Your task to perform on an android device: Find coffee shops on Maps Image 0: 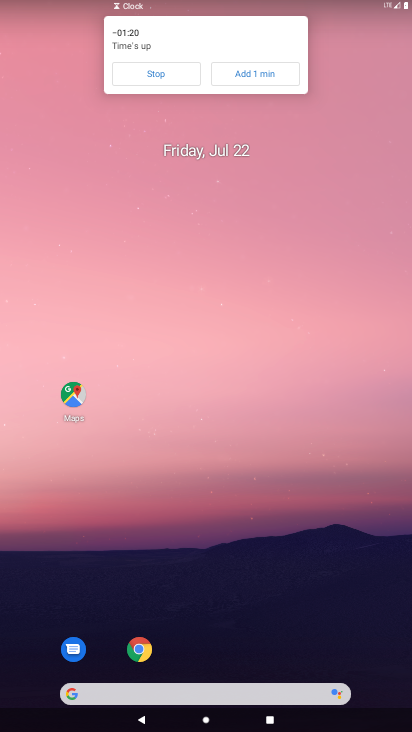
Step 0: drag from (226, 722) to (204, 218)
Your task to perform on an android device: Find coffee shops on Maps Image 1: 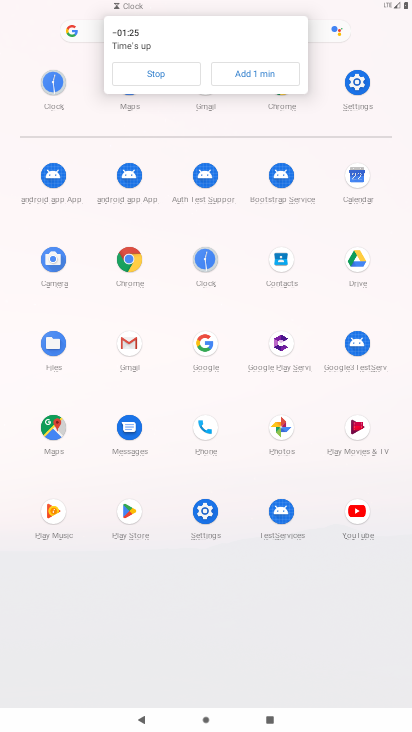
Step 1: click (47, 429)
Your task to perform on an android device: Find coffee shops on Maps Image 2: 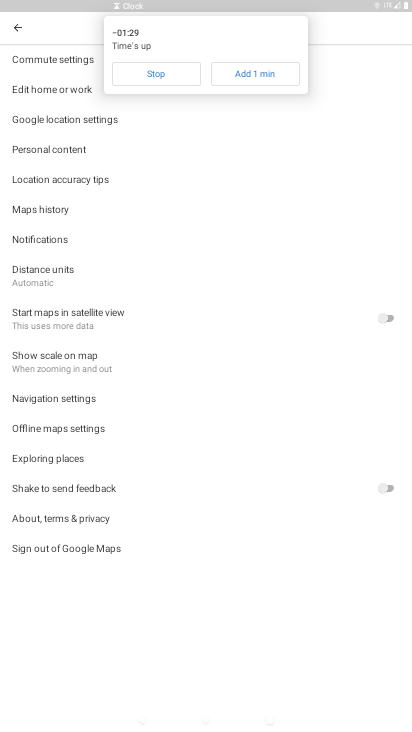
Step 2: click (163, 76)
Your task to perform on an android device: Find coffee shops on Maps Image 3: 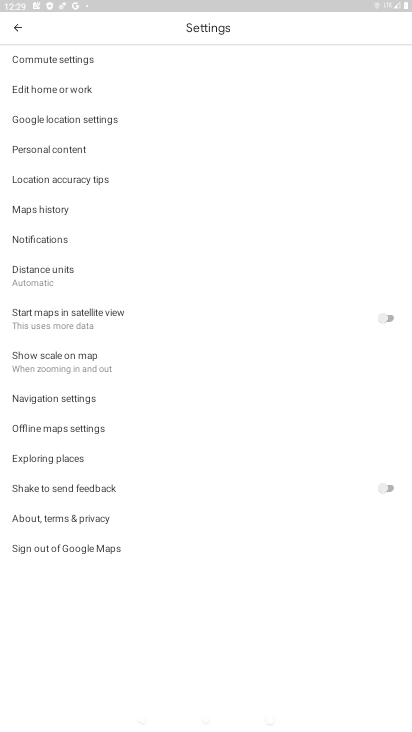
Step 3: click (18, 26)
Your task to perform on an android device: Find coffee shops on Maps Image 4: 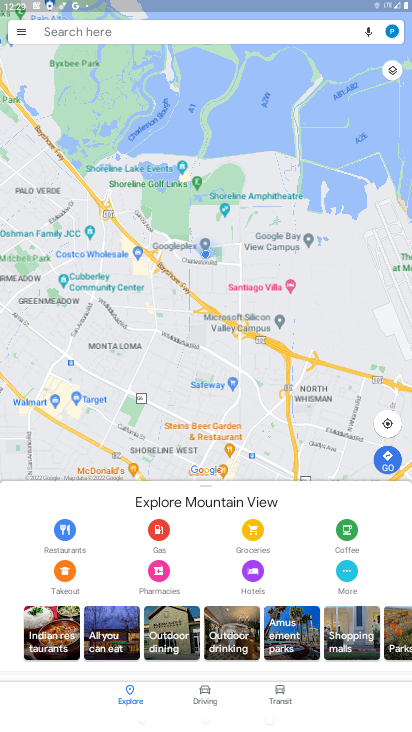
Step 4: click (172, 33)
Your task to perform on an android device: Find coffee shops on Maps Image 5: 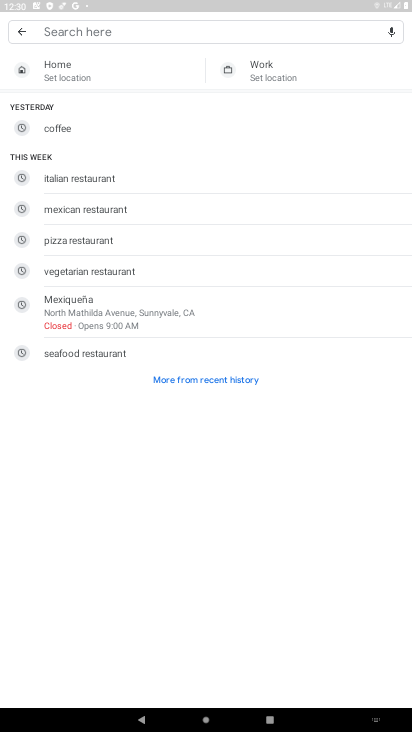
Step 5: type "coffee shops"
Your task to perform on an android device: Find coffee shops on Maps Image 6: 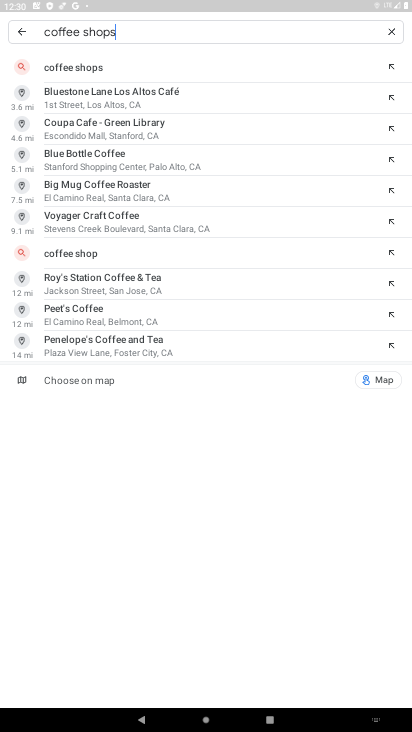
Step 6: click (72, 65)
Your task to perform on an android device: Find coffee shops on Maps Image 7: 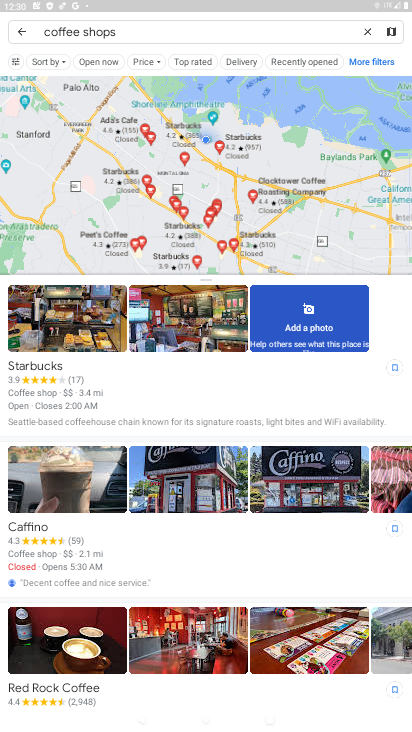
Step 7: task complete